Your task to perform on an android device: Open calendar and show me the fourth week of next month Image 0: 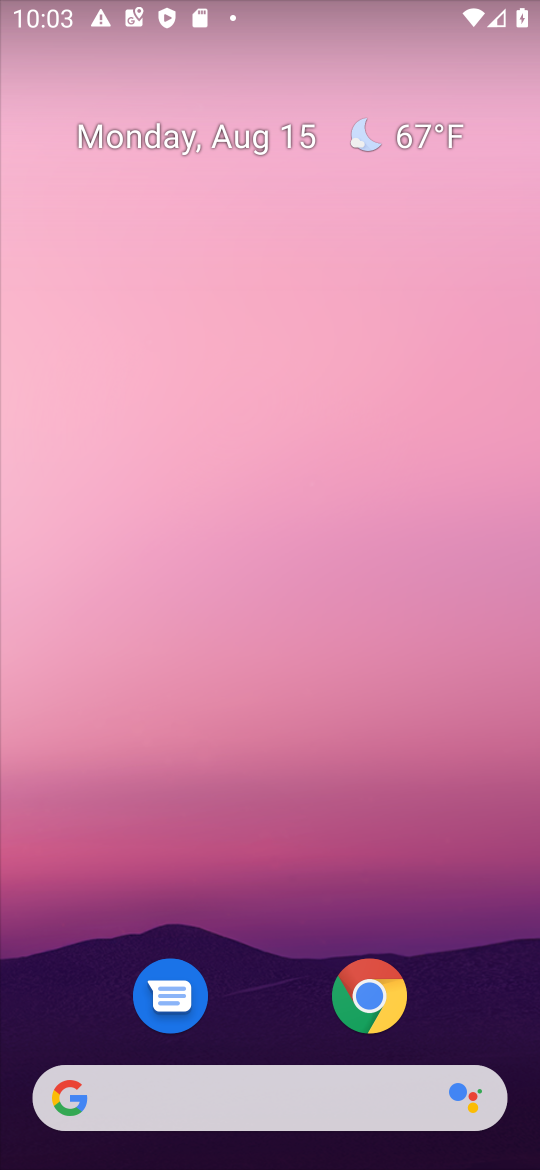
Step 0: press home button
Your task to perform on an android device: Open calendar and show me the fourth week of next month Image 1: 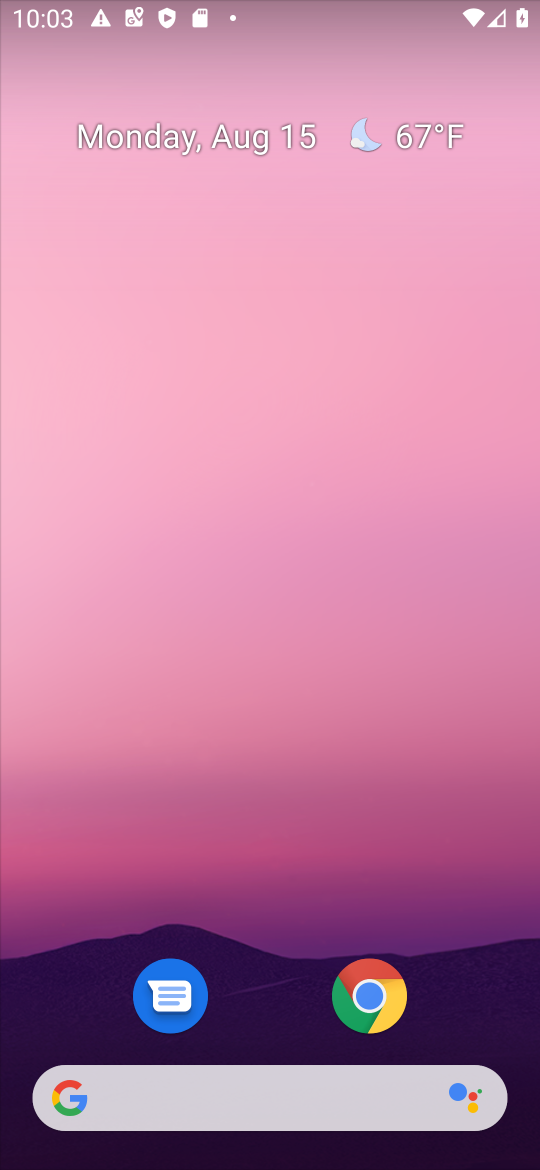
Step 1: drag from (261, 307) to (255, 181)
Your task to perform on an android device: Open calendar and show me the fourth week of next month Image 2: 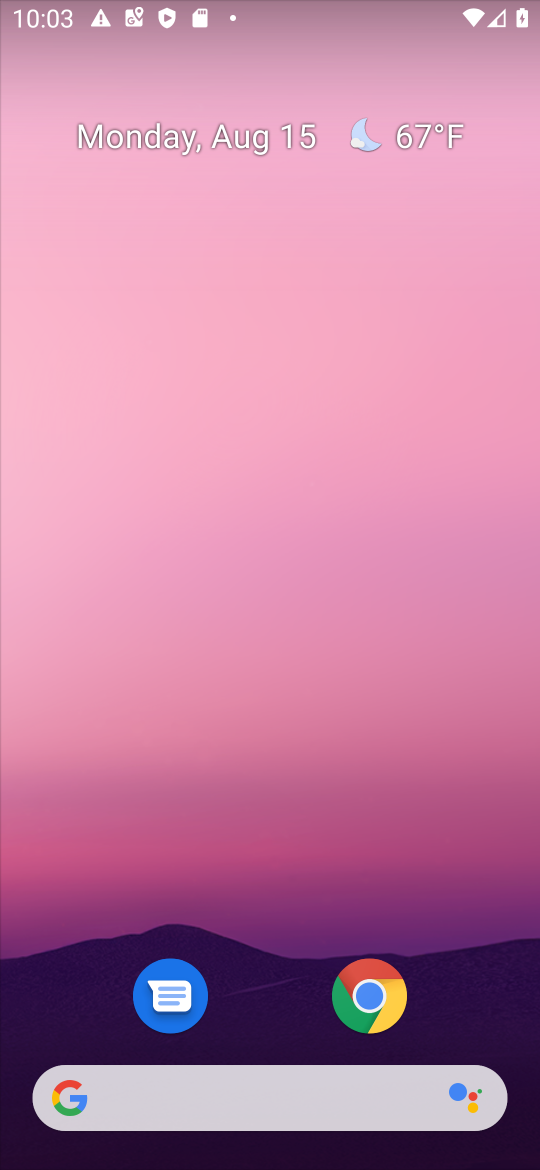
Step 2: drag from (192, 1101) to (216, 97)
Your task to perform on an android device: Open calendar and show me the fourth week of next month Image 3: 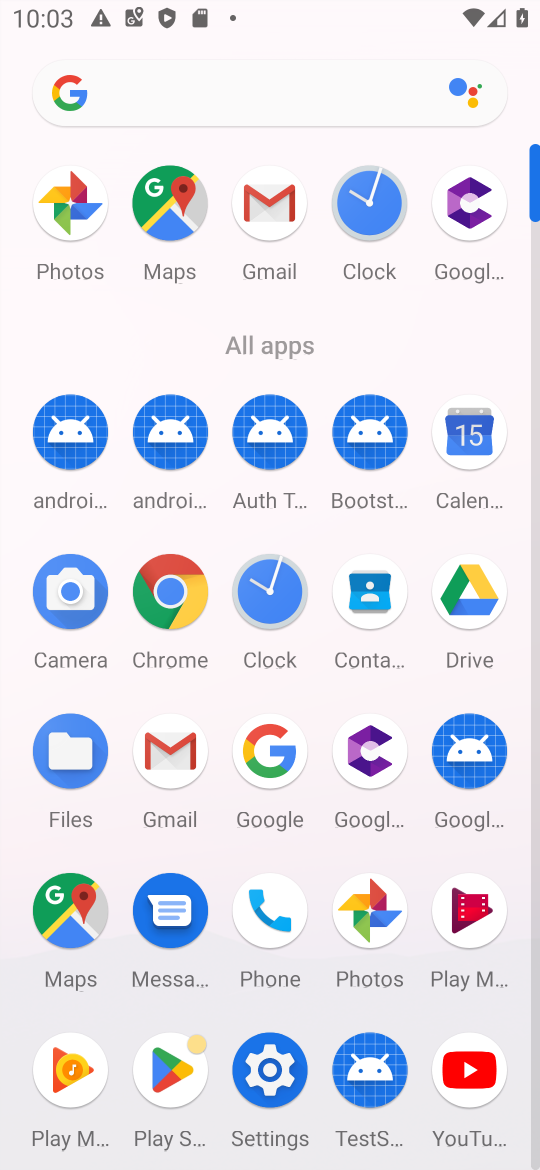
Step 3: click (477, 440)
Your task to perform on an android device: Open calendar and show me the fourth week of next month Image 4: 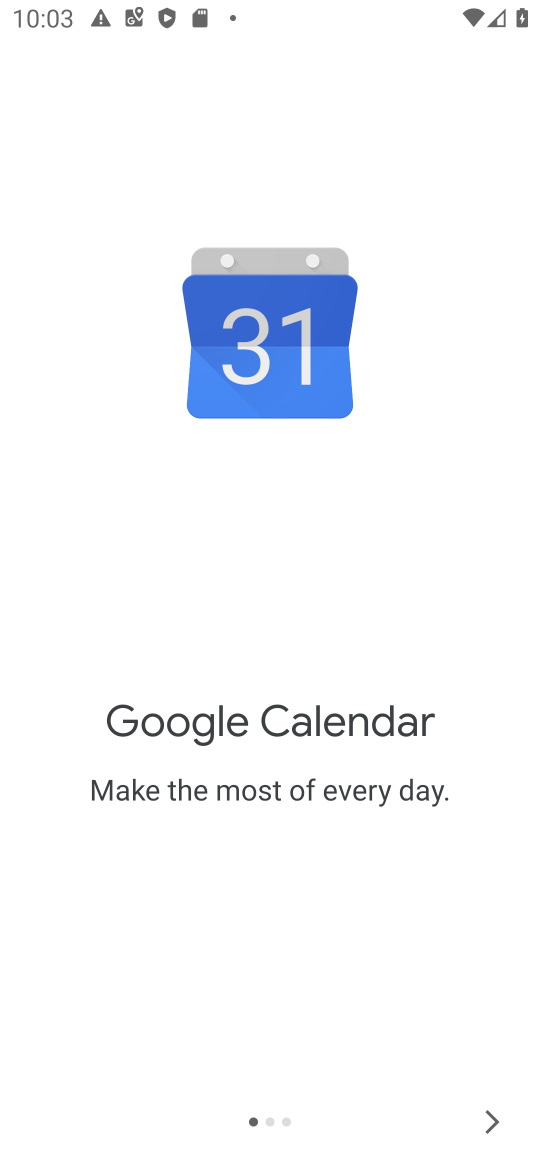
Step 4: click (495, 1120)
Your task to perform on an android device: Open calendar and show me the fourth week of next month Image 5: 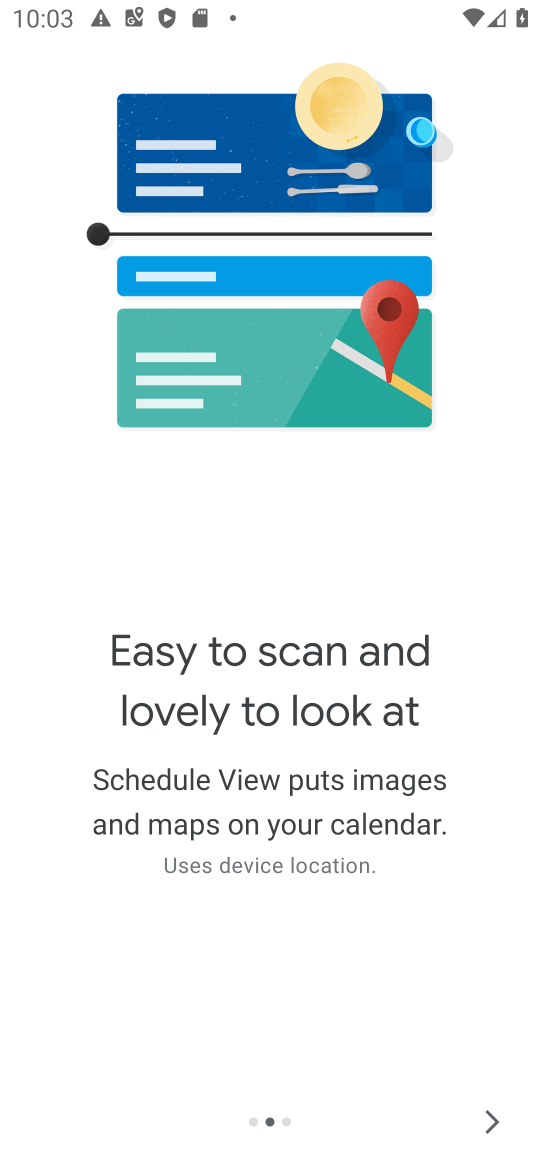
Step 5: click (495, 1120)
Your task to perform on an android device: Open calendar and show me the fourth week of next month Image 6: 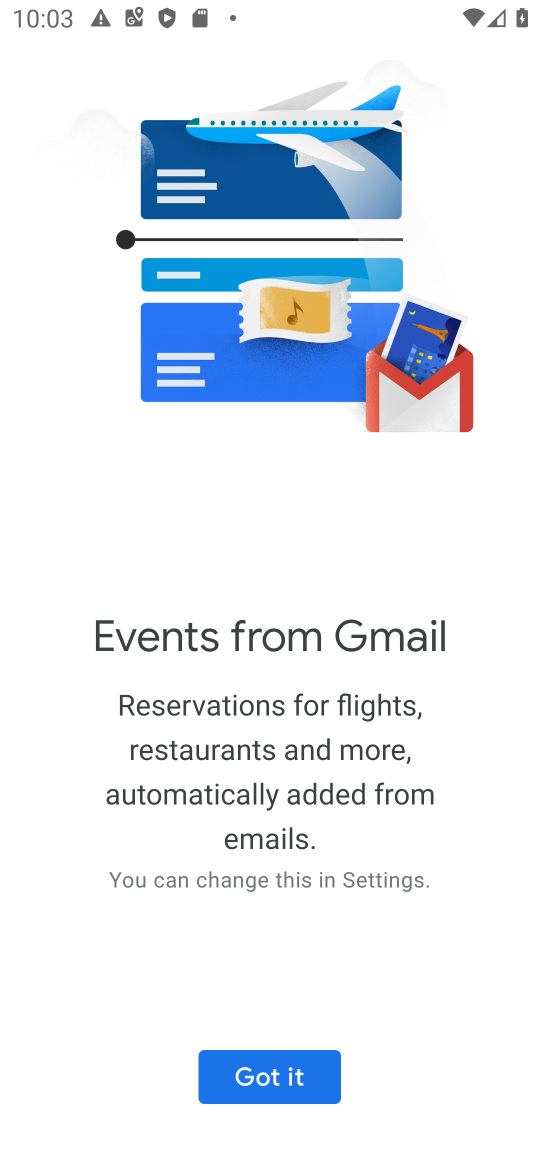
Step 6: click (309, 1075)
Your task to perform on an android device: Open calendar and show me the fourth week of next month Image 7: 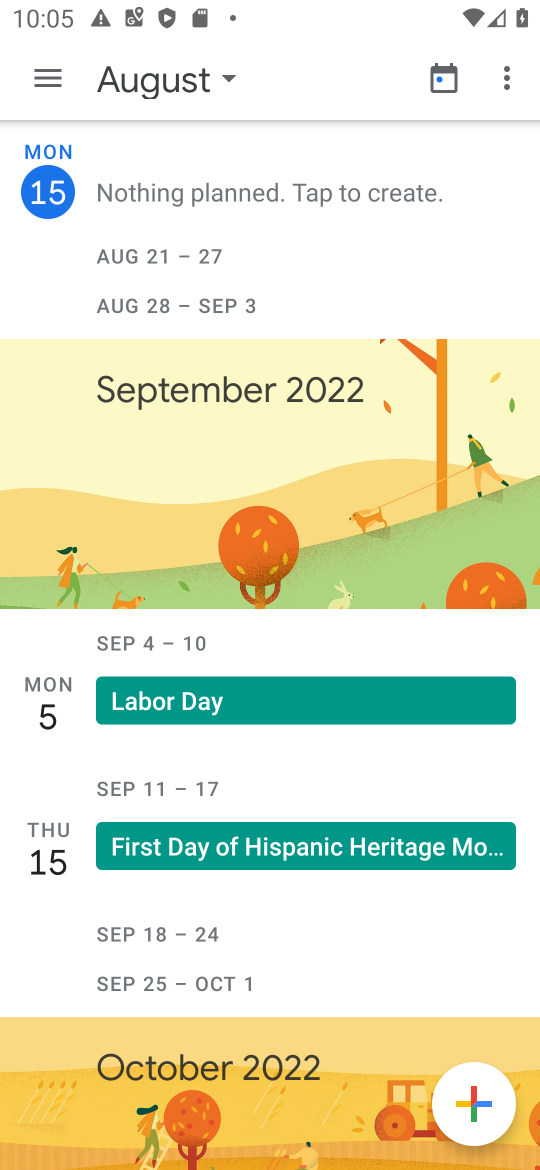
Step 7: click (182, 68)
Your task to perform on an android device: Open calendar and show me the fourth week of next month Image 8: 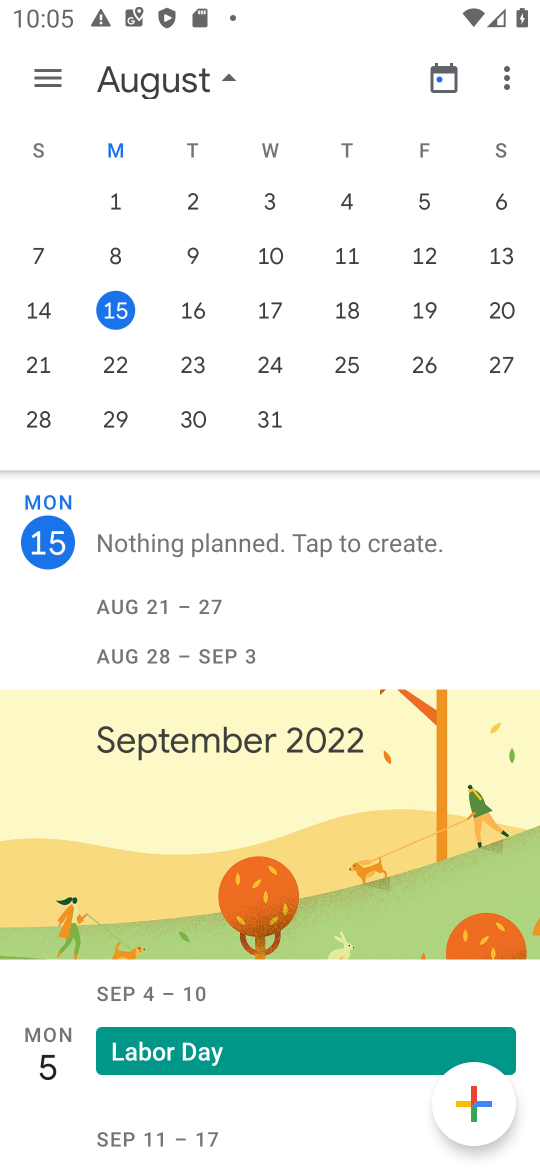
Step 8: drag from (514, 357) to (0, 420)
Your task to perform on an android device: Open calendar and show me the fourth week of next month Image 9: 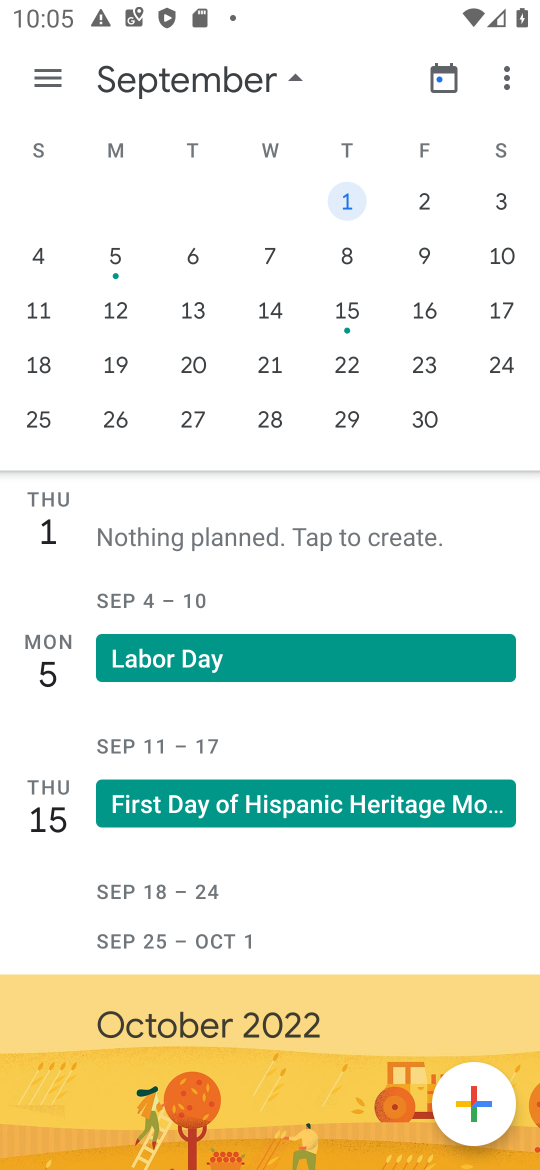
Step 9: click (32, 364)
Your task to perform on an android device: Open calendar and show me the fourth week of next month Image 10: 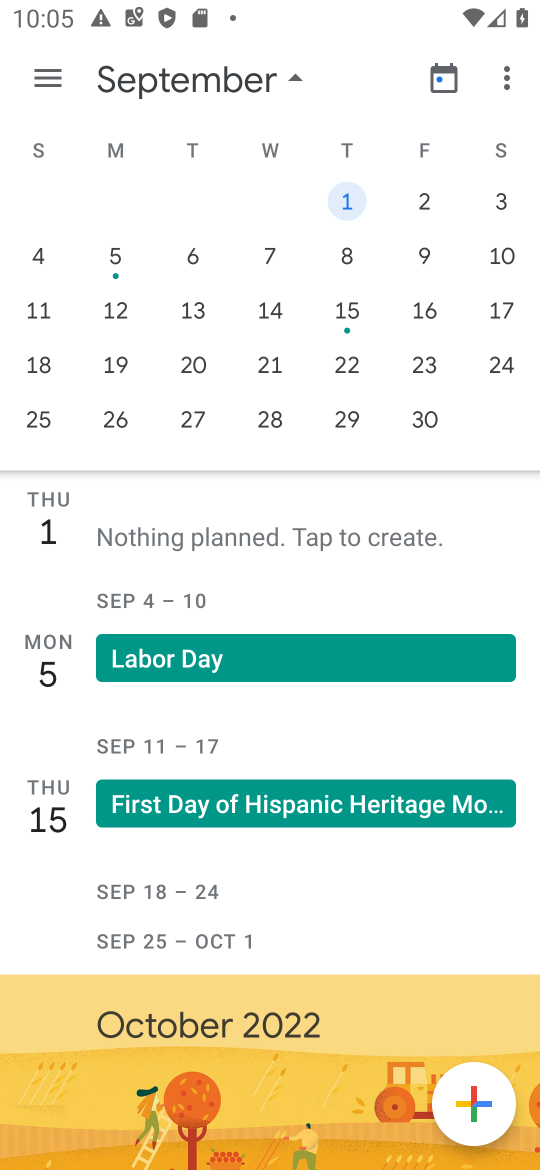
Step 10: click (40, 371)
Your task to perform on an android device: Open calendar and show me the fourth week of next month Image 11: 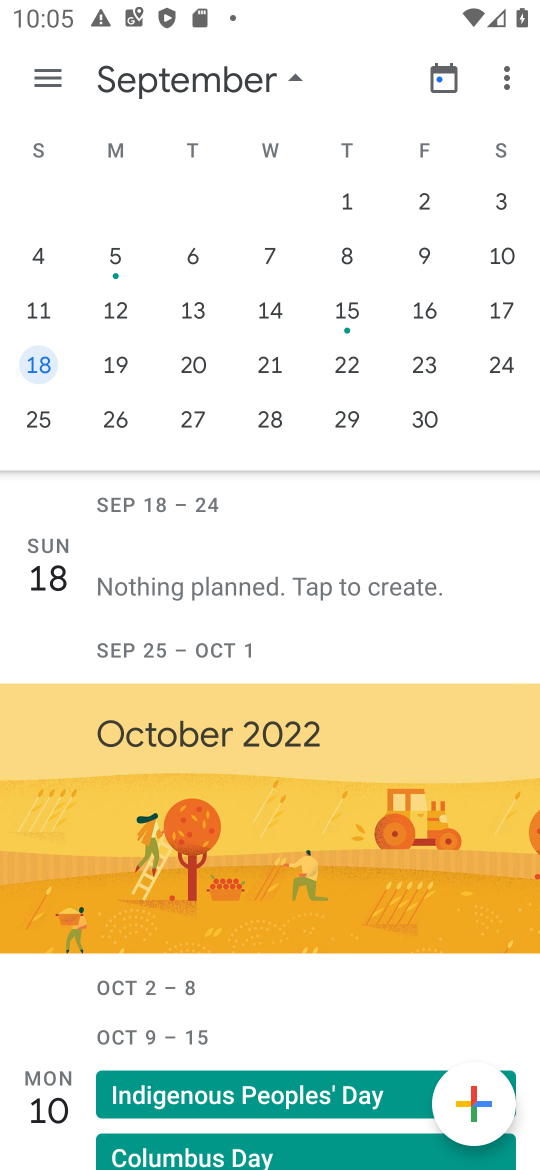
Step 11: task complete